Your task to perform on an android device: Check the weather Image 0: 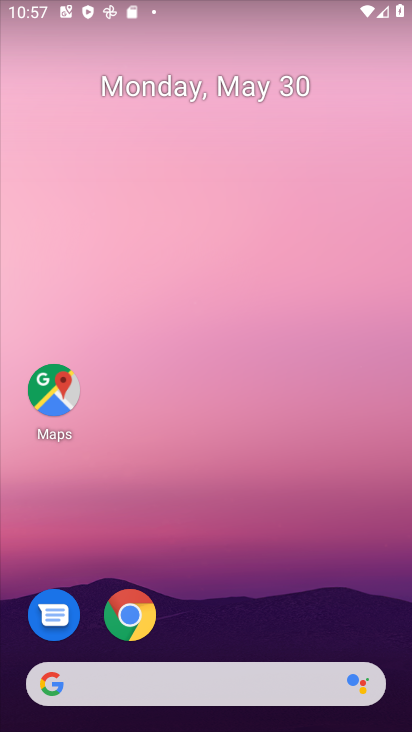
Step 0: drag from (264, 588) to (226, 39)
Your task to perform on an android device: Check the weather Image 1: 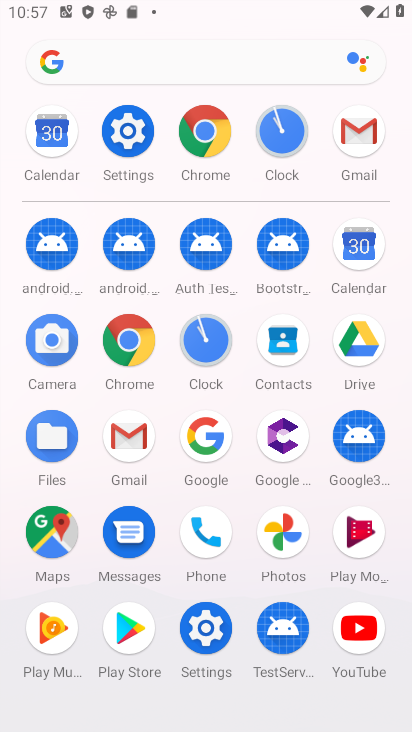
Step 1: click (188, 441)
Your task to perform on an android device: Check the weather Image 2: 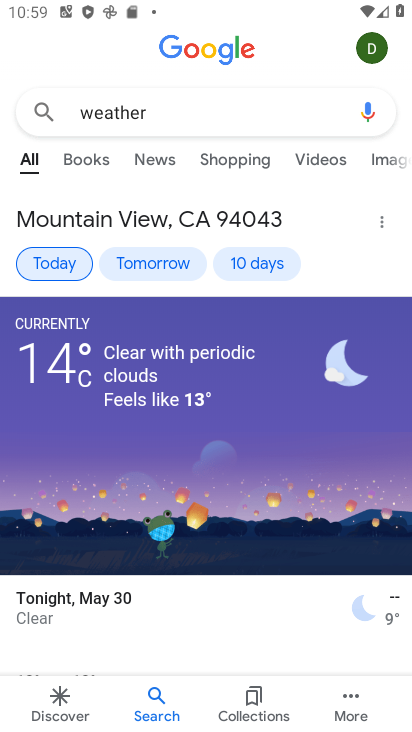
Step 2: task complete